Your task to perform on an android device: turn off smart reply in the gmail app Image 0: 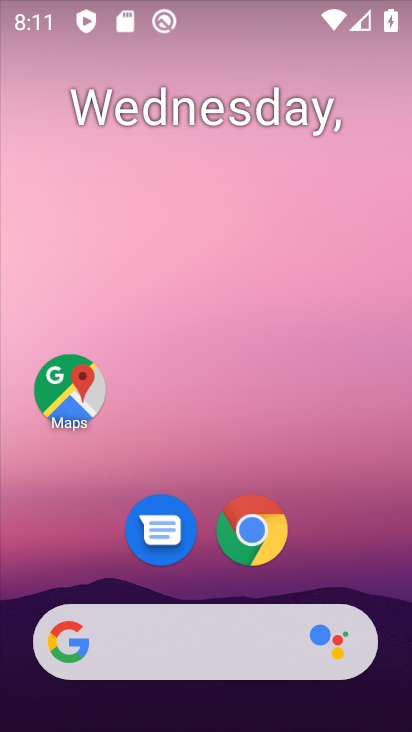
Step 0: drag from (307, 698) to (315, 48)
Your task to perform on an android device: turn off smart reply in the gmail app Image 1: 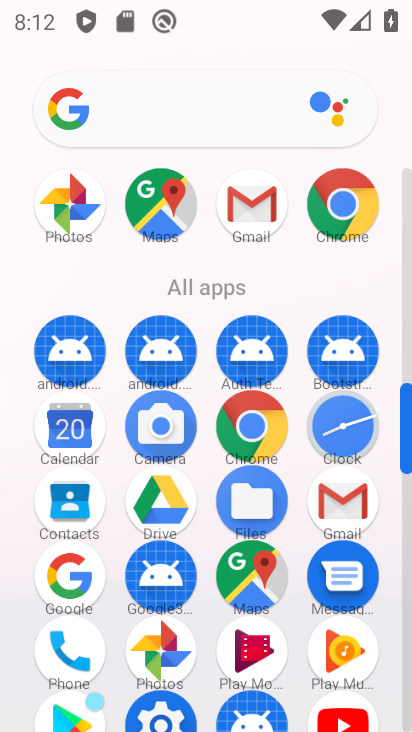
Step 1: click (355, 495)
Your task to perform on an android device: turn off smart reply in the gmail app Image 2: 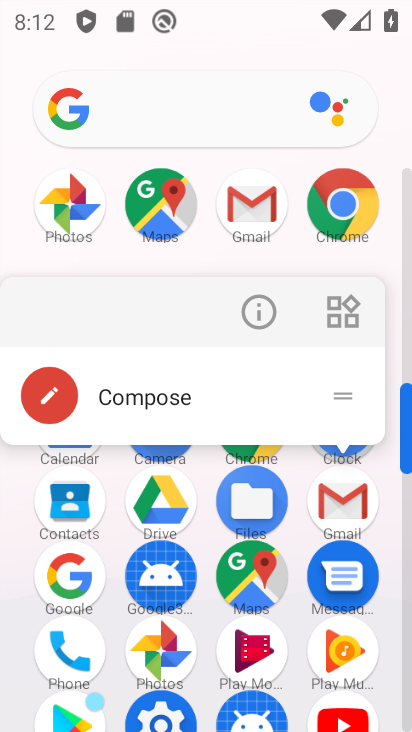
Step 2: click (253, 205)
Your task to perform on an android device: turn off smart reply in the gmail app Image 3: 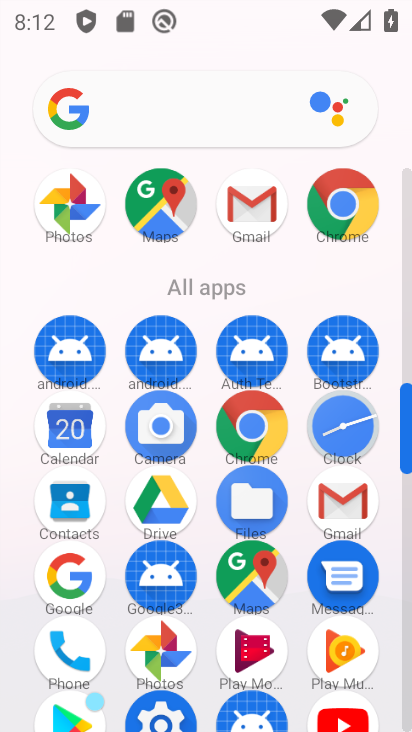
Step 3: click (257, 214)
Your task to perform on an android device: turn off smart reply in the gmail app Image 4: 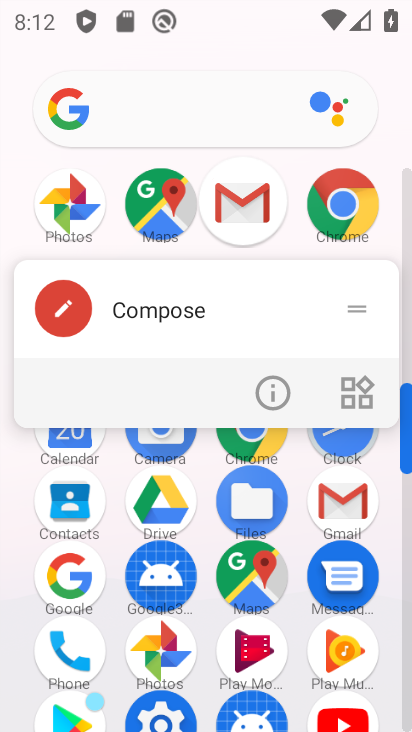
Step 4: click (252, 205)
Your task to perform on an android device: turn off smart reply in the gmail app Image 5: 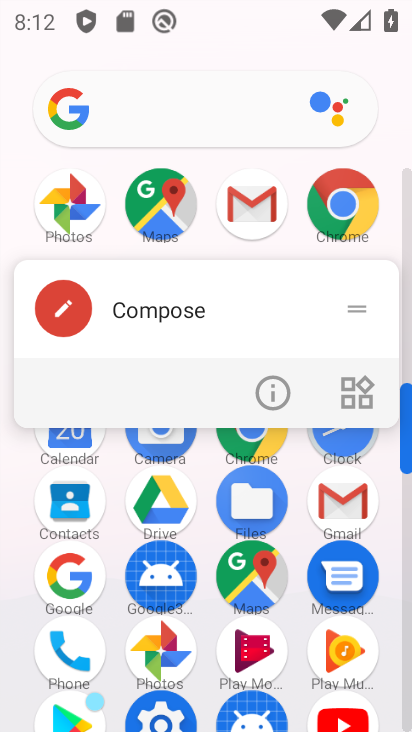
Step 5: click (247, 208)
Your task to perform on an android device: turn off smart reply in the gmail app Image 6: 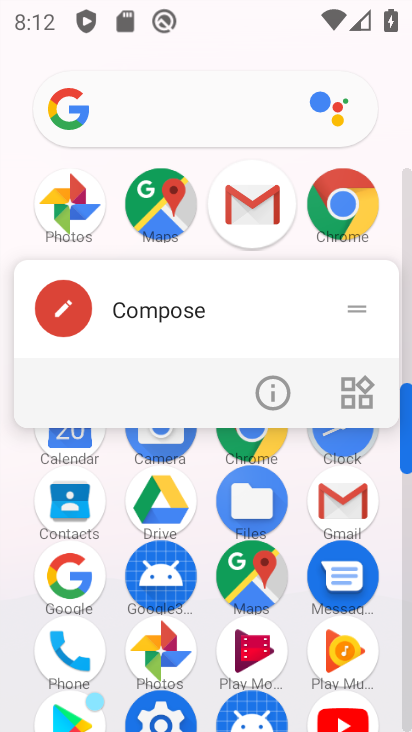
Step 6: click (247, 208)
Your task to perform on an android device: turn off smart reply in the gmail app Image 7: 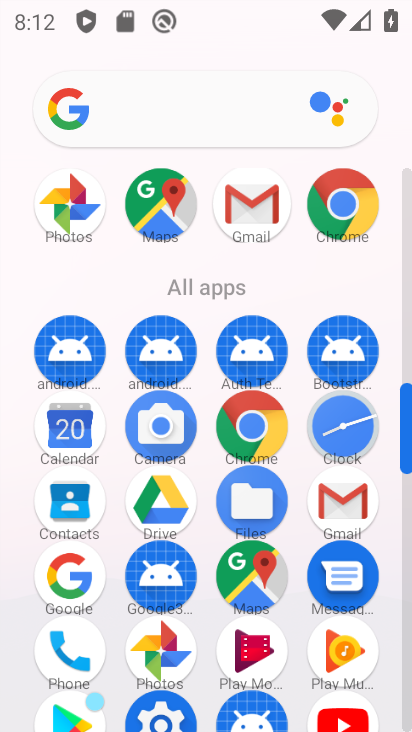
Step 7: click (342, 496)
Your task to perform on an android device: turn off smart reply in the gmail app Image 8: 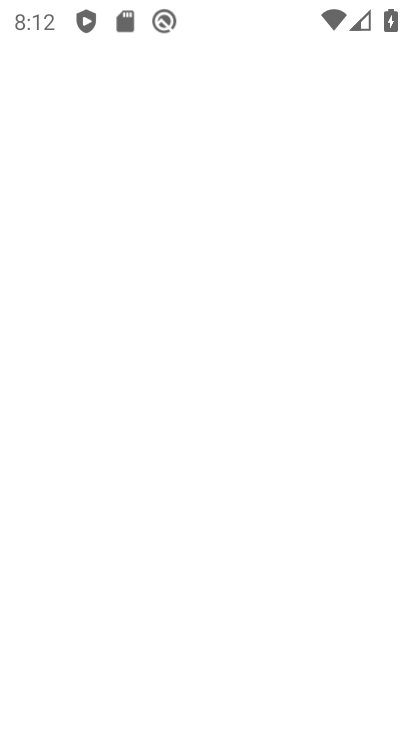
Step 8: click (342, 496)
Your task to perform on an android device: turn off smart reply in the gmail app Image 9: 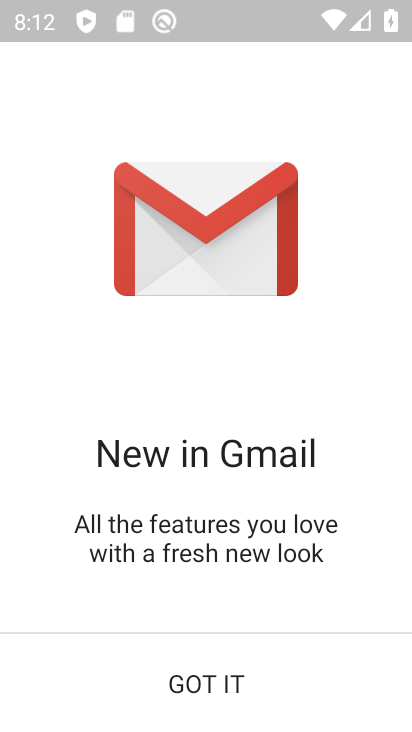
Step 9: click (220, 663)
Your task to perform on an android device: turn off smart reply in the gmail app Image 10: 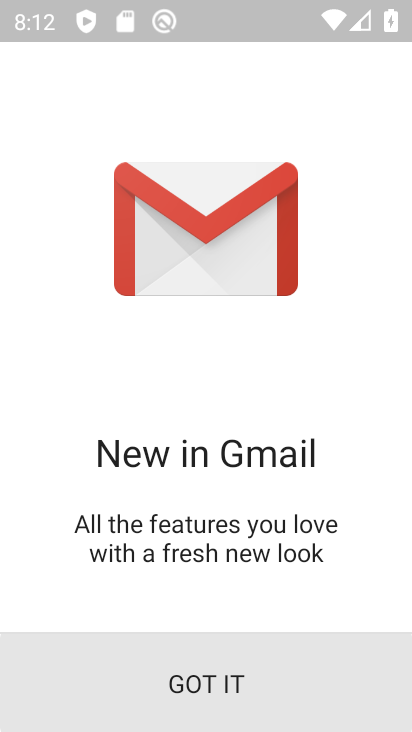
Step 10: click (211, 679)
Your task to perform on an android device: turn off smart reply in the gmail app Image 11: 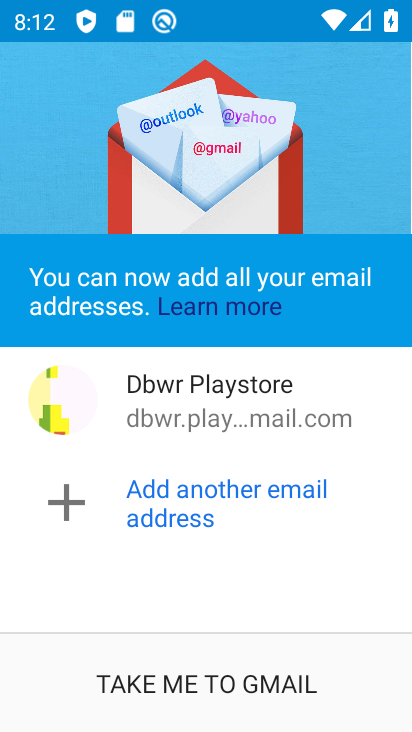
Step 11: click (209, 681)
Your task to perform on an android device: turn off smart reply in the gmail app Image 12: 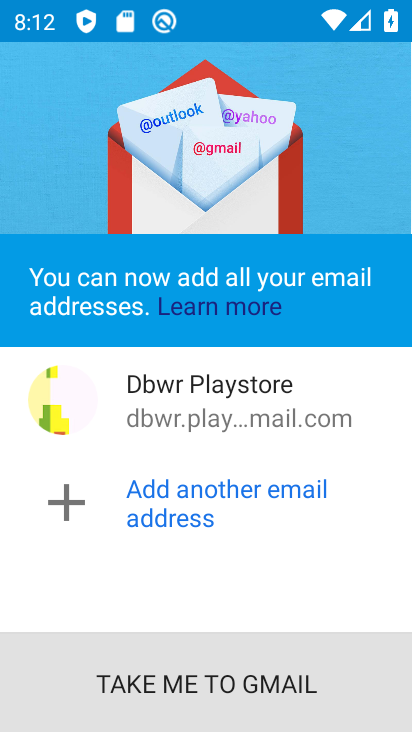
Step 12: click (209, 681)
Your task to perform on an android device: turn off smart reply in the gmail app Image 13: 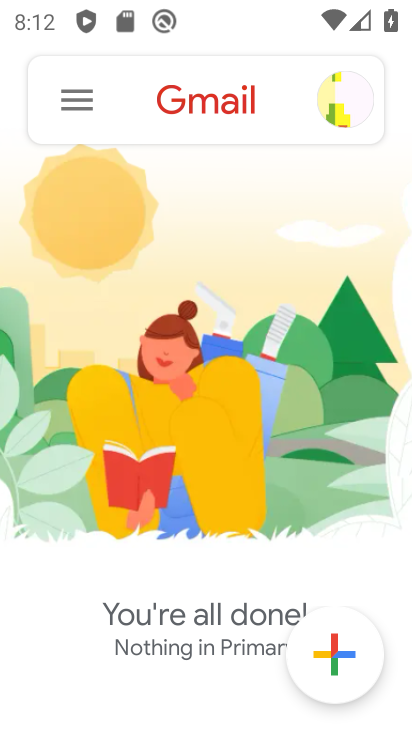
Step 13: click (72, 84)
Your task to perform on an android device: turn off smart reply in the gmail app Image 14: 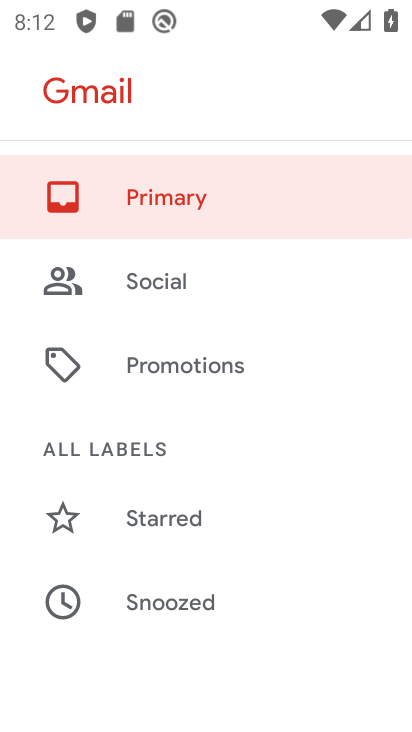
Step 14: drag from (208, 549) to (230, 136)
Your task to perform on an android device: turn off smart reply in the gmail app Image 15: 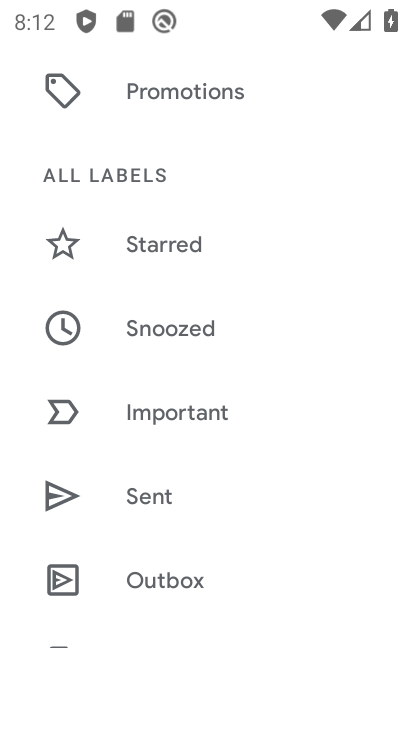
Step 15: drag from (228, 422) to (180, 21)
Your task to perform on an android device: turn off smart reply in the gmail app Image 16: 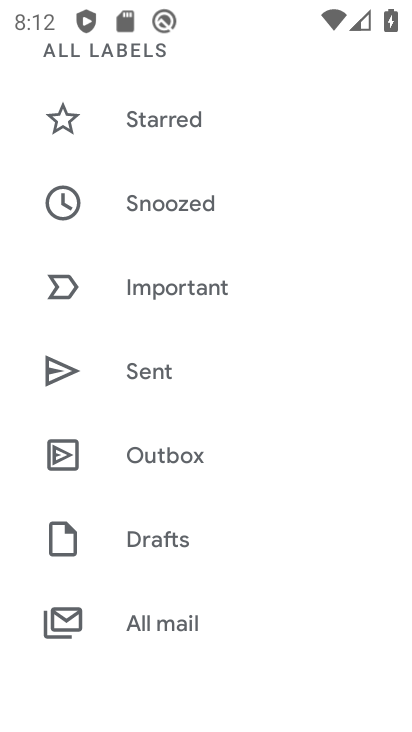
Step 16: click (165, 611)
Your task to perform on an android device: turn off smart reply in the gmail app Image 17: 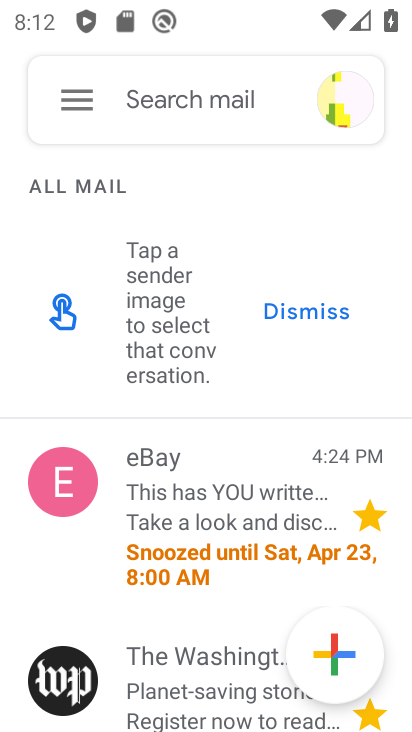
Step 17: press back button
Your task to perform on an android device: turn off smart reply in the gmail app Image 18: 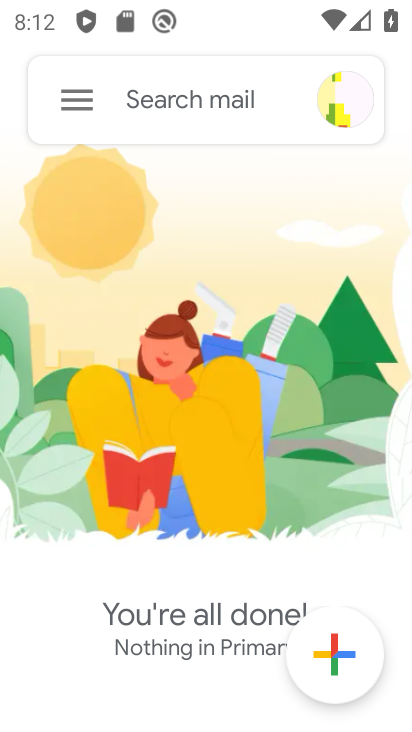
Step 18: press back button
Your task to perform on an android device: turn off smart reply in the gmail app Image 19: 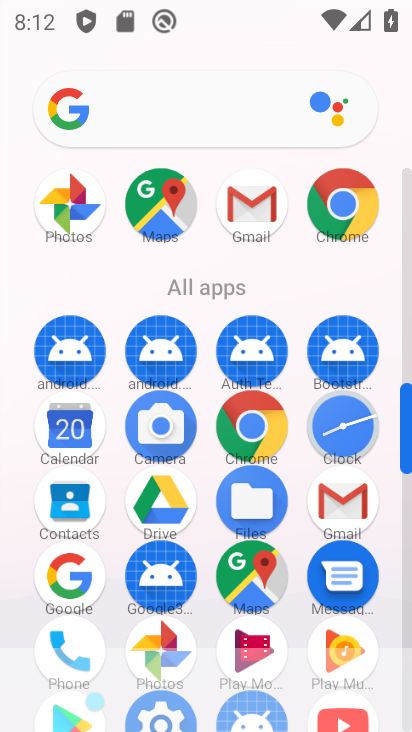
Step 19: click (244, 209)
Your task to perform on an android device: turn off smart reply in the gmail app Image 20: 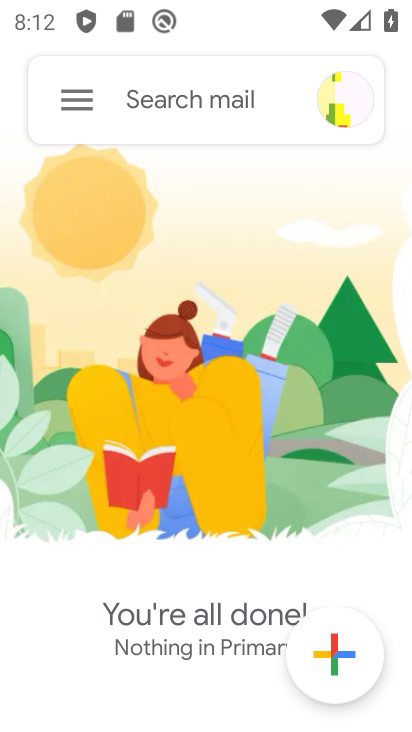
Step 20: click (77, 97)
Your task to perform on an android device: turn off smart reply in the gmail app Image 21: 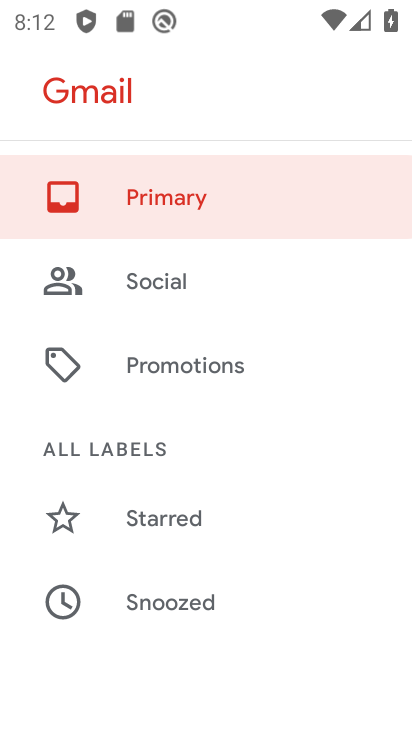
Step 21: drag from (226, 363) to (252, 148)
Your task to perform on an android device: turn off smart reply in the gmail app Image 22: 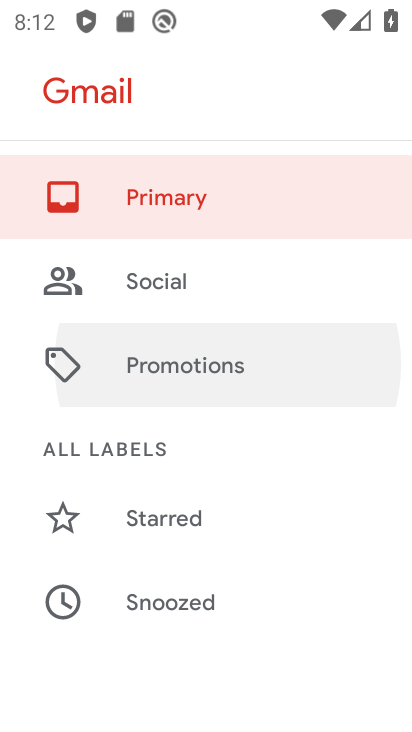
Step 22: drag from (155, 605) to (173, 101)
Your task to perform on an android device: turn off smart reply in the gmail app Image 23: 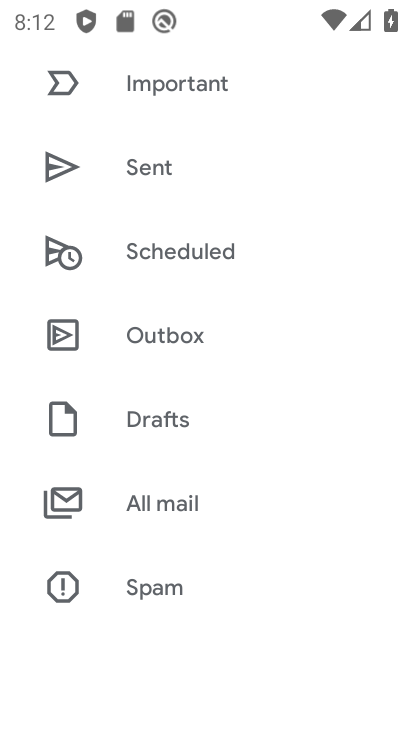
Step 23: drag from (238, 601) to (226, 14)
Your task to perform on an android device: turn off smart reply in the gmail app Image 24: 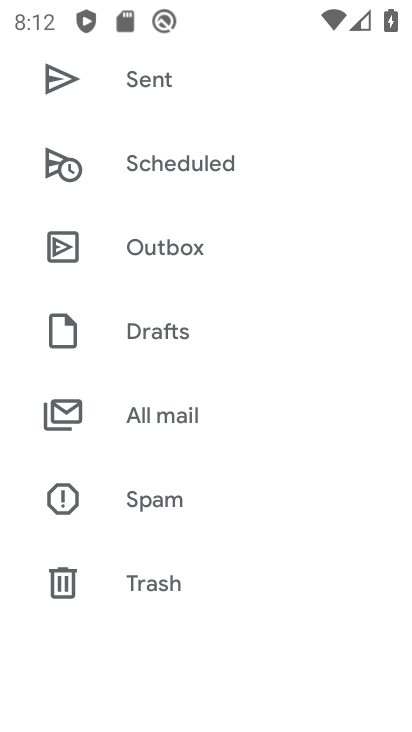
Step 24: drag from (142, 351) to (175, 28)
Your task to perform on an android device: turn off smart reply in the gmail app Image 25: 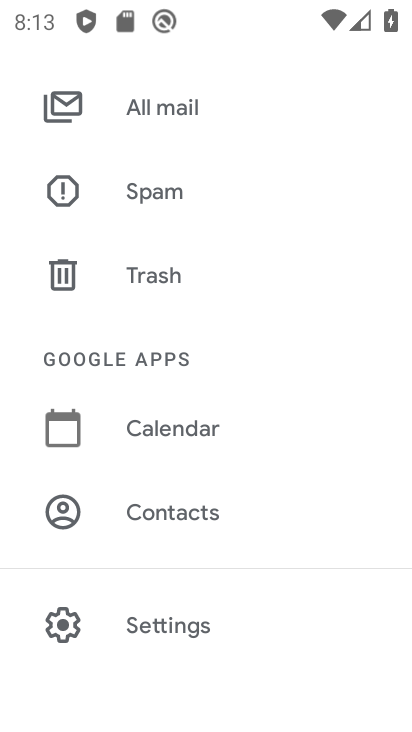
Step 25: click (168, 613)
Your task to perform on an android device: turn off smart reply in the gmail app Image 26: 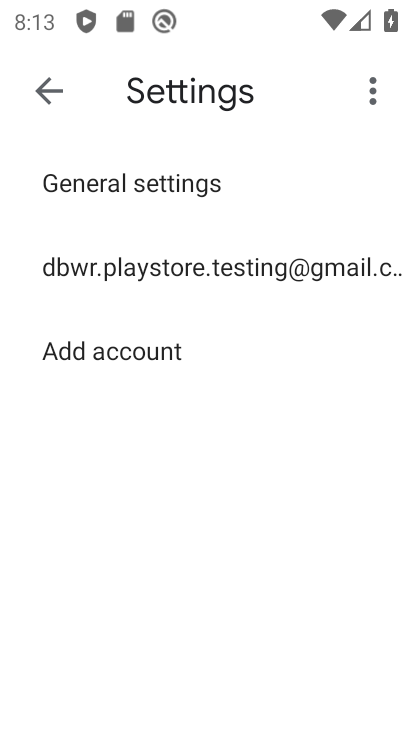
Step 26: click (124, 259)
Your task to perform on an android device: turn off smart reply in the gmail app Image 27: 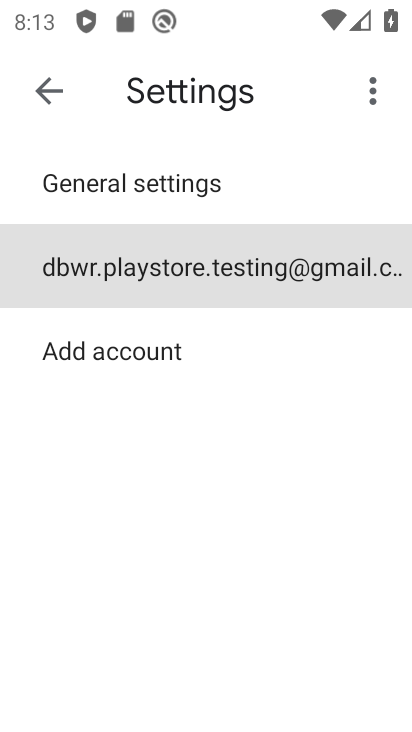
Step 27: click (134, 267)
Your task to perform on an android device: turn off smart reply in the gmail app Image 28: 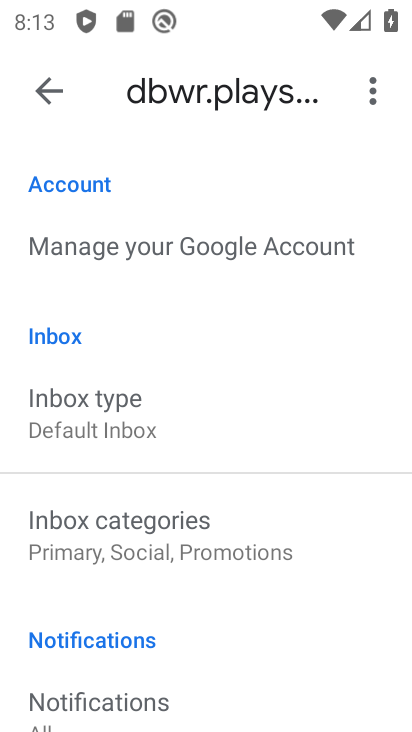
Step 28: drag from (183, 595) to (161, 105)
Your task to perform on an android device: turn off smart reply in the gmail app Image 29: 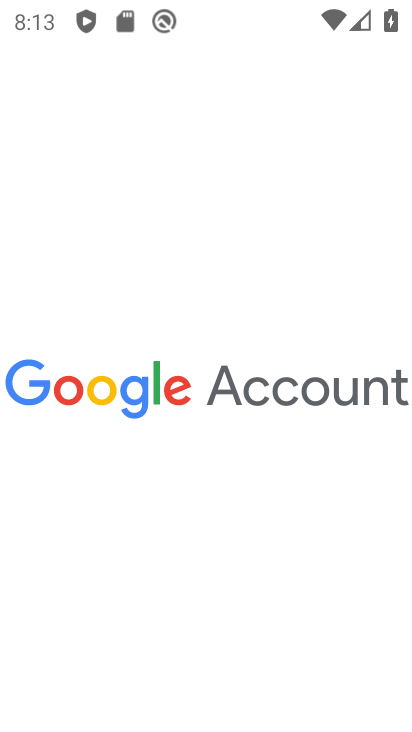
Step 29: drag from (139, 283) to (169, 72)
Your task to perform on an android device: turn off smart reply in the gmail app Image 30: 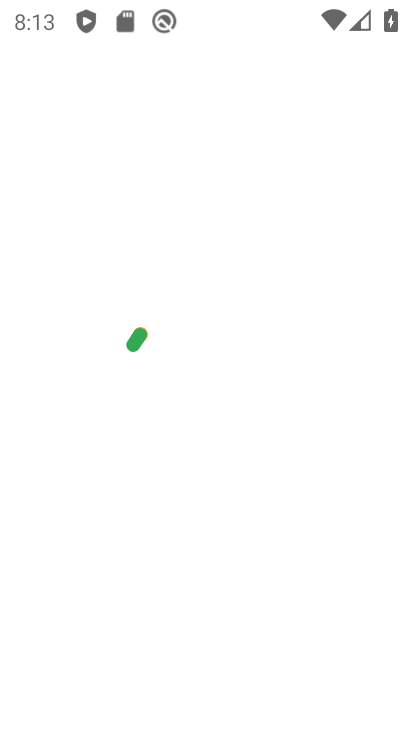
Step 30: press back button
Your task to perform on an android device: turn off smart reply in the gmail app Image 31: 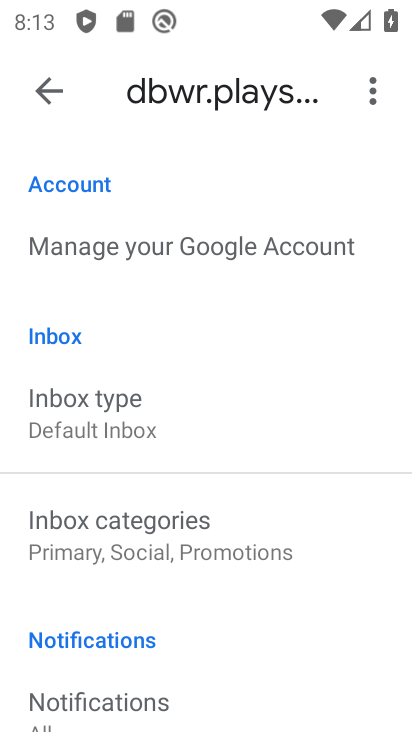
Step 31: drag from (165, 463) to (221, 82)
Your task to perform on an android device: turn off smart reply in the gmail app Image 32: 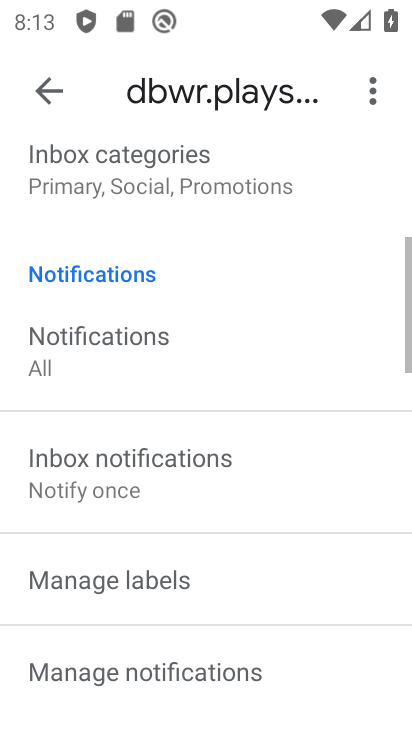
Step 32: drag from (74, 630) to (70, 317)
Your task to perform on an android device: turn off smart reply in the gmail app Image 33: 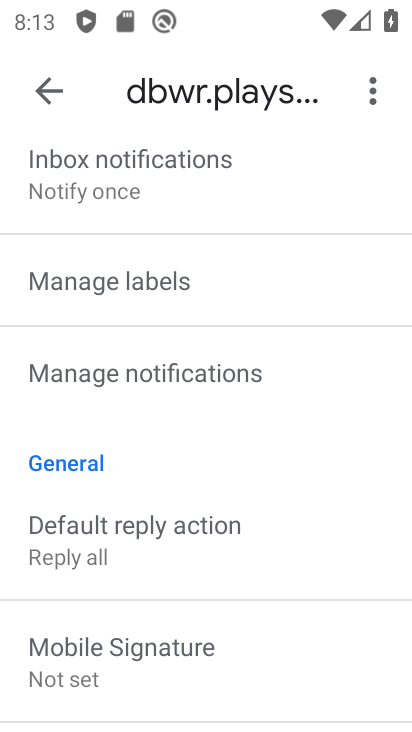
Step 33: drag from (160, 594) to (145, 159)
Your task to perform on an android device: turn off smart reply in the gmail app Image 34: 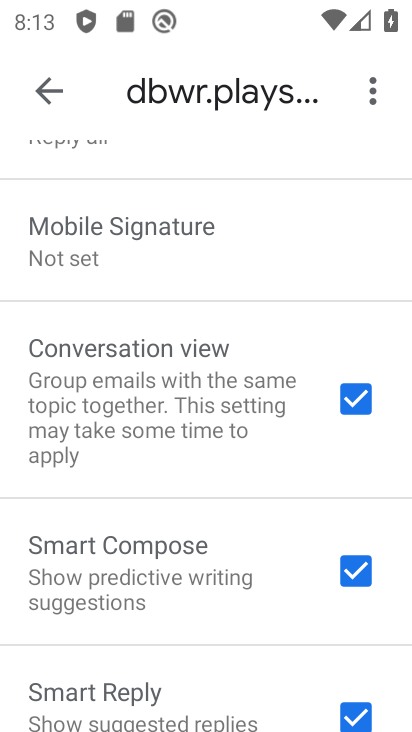
Step 34: drag from (172, 669) to (176, 267)
Your task to perform on an android device: turn off smart reply in the gmail app Image 35: 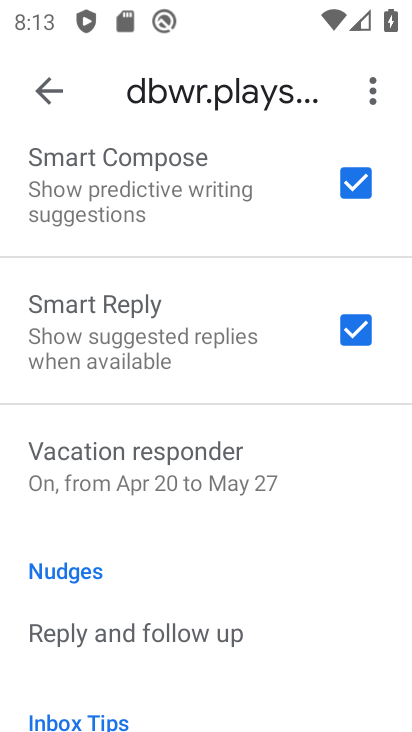
Step 35: click (101, 320)
Your task to perform on an android device: turn off smart reply in the gmail app Image 36: 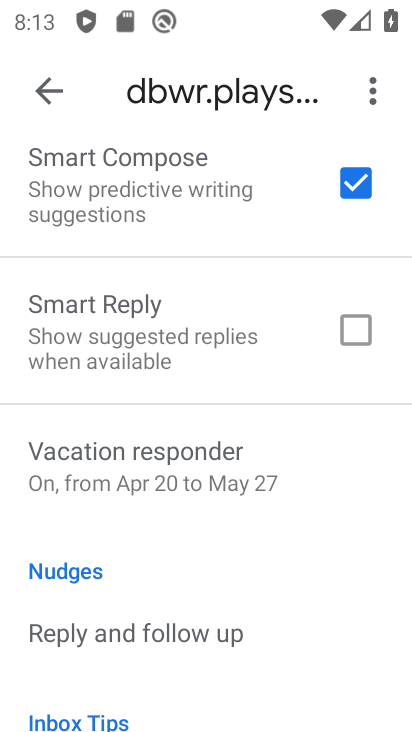
Step 36: task complete